Your task to perform on an android device: Clear the cart on costco. Image 0: 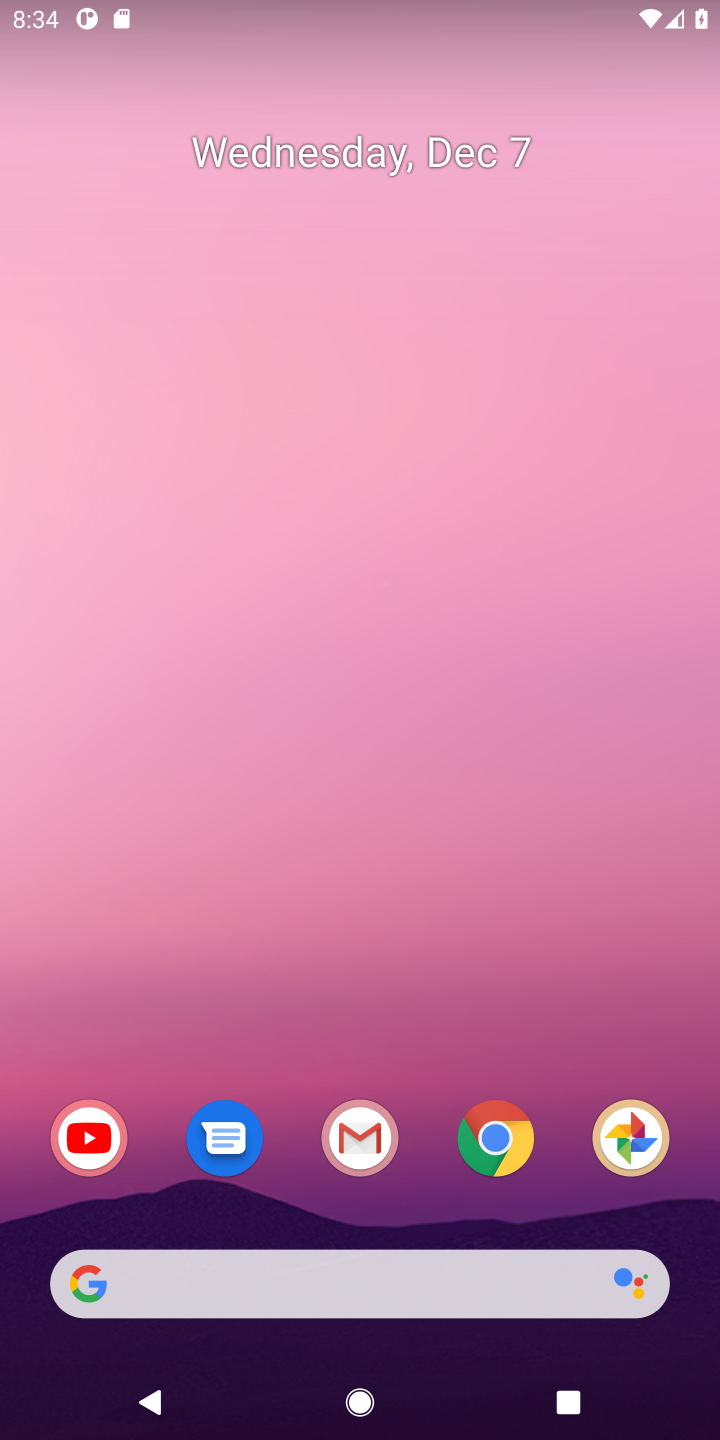
Step 0: press home button
Your task to perform on an android device: Clear the cart on costco. Image 1: 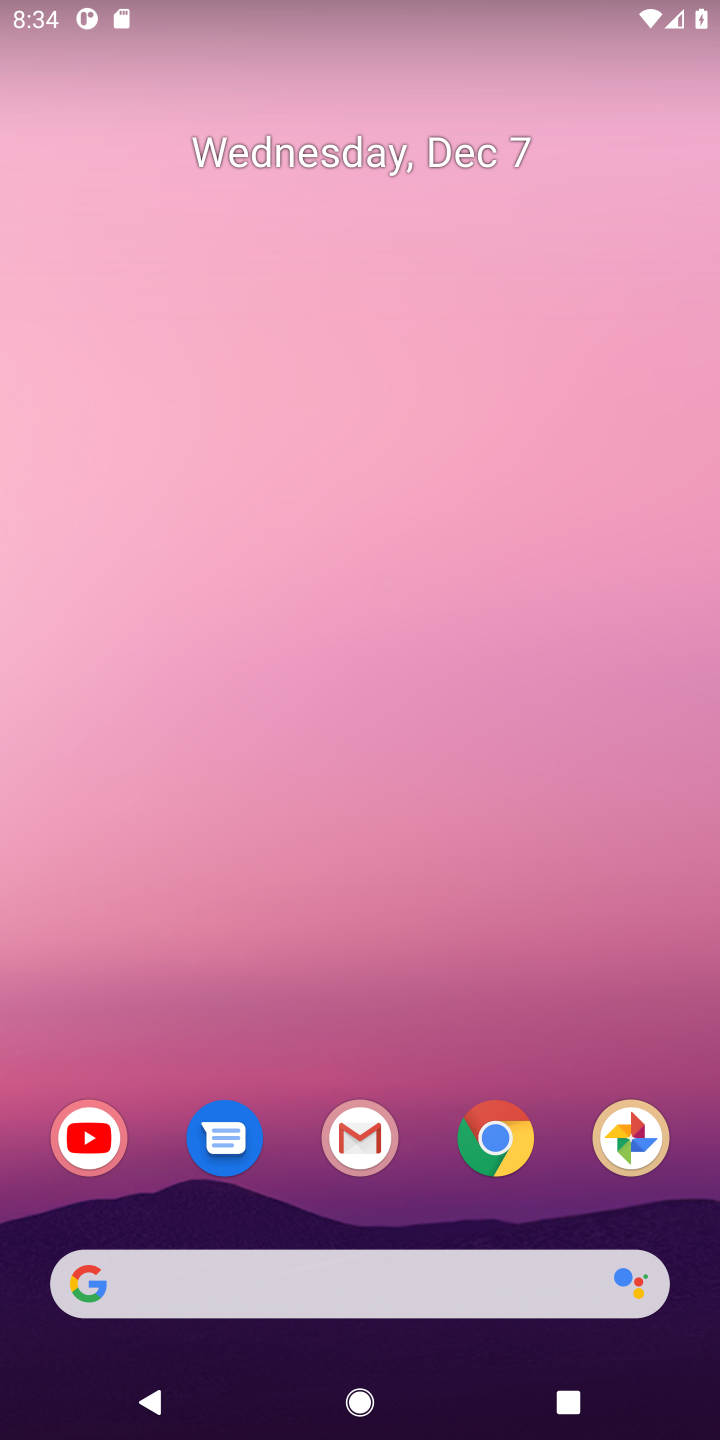
Step 1: click (130, 1270)
Your task to perform on an android device: Clear the cart on costco. Image 2: 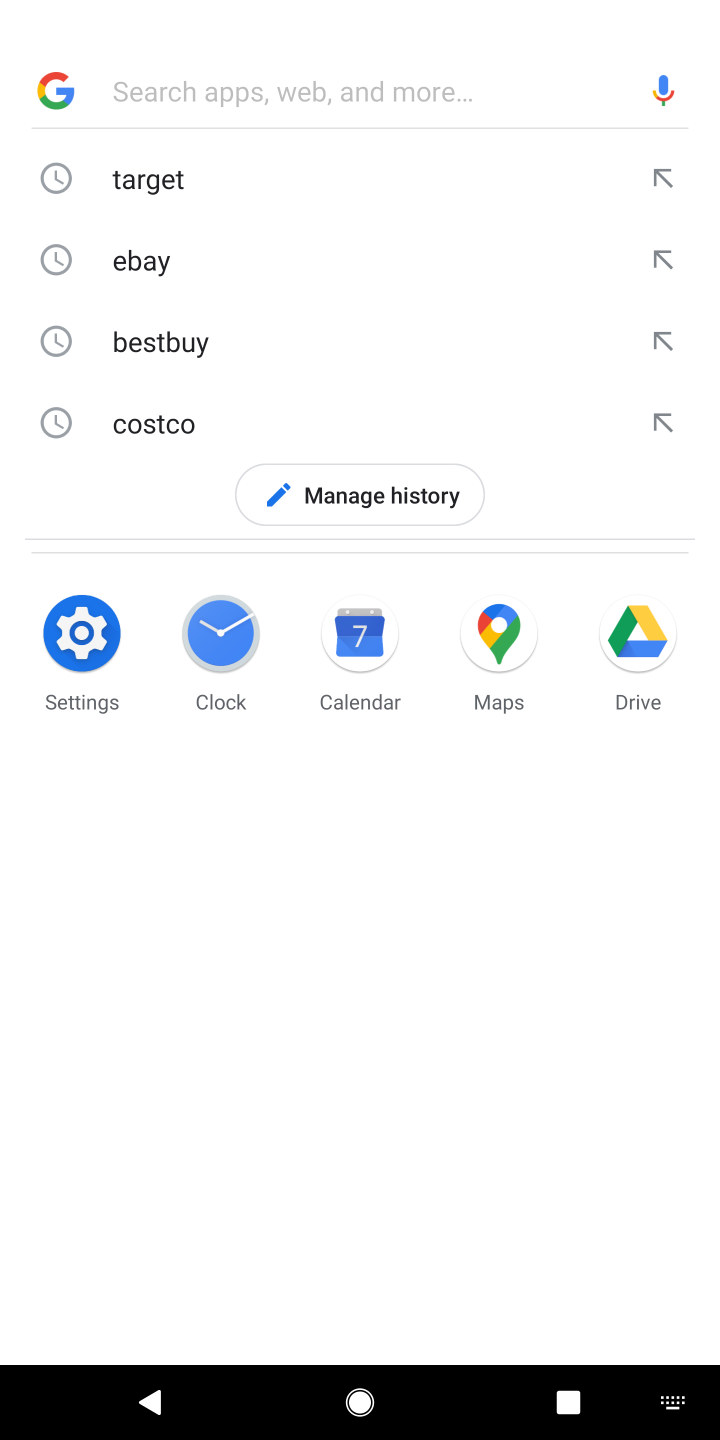
Step 2: type "costco"
Your task to perform on an android device: Clear the cart on costco. Image 3: 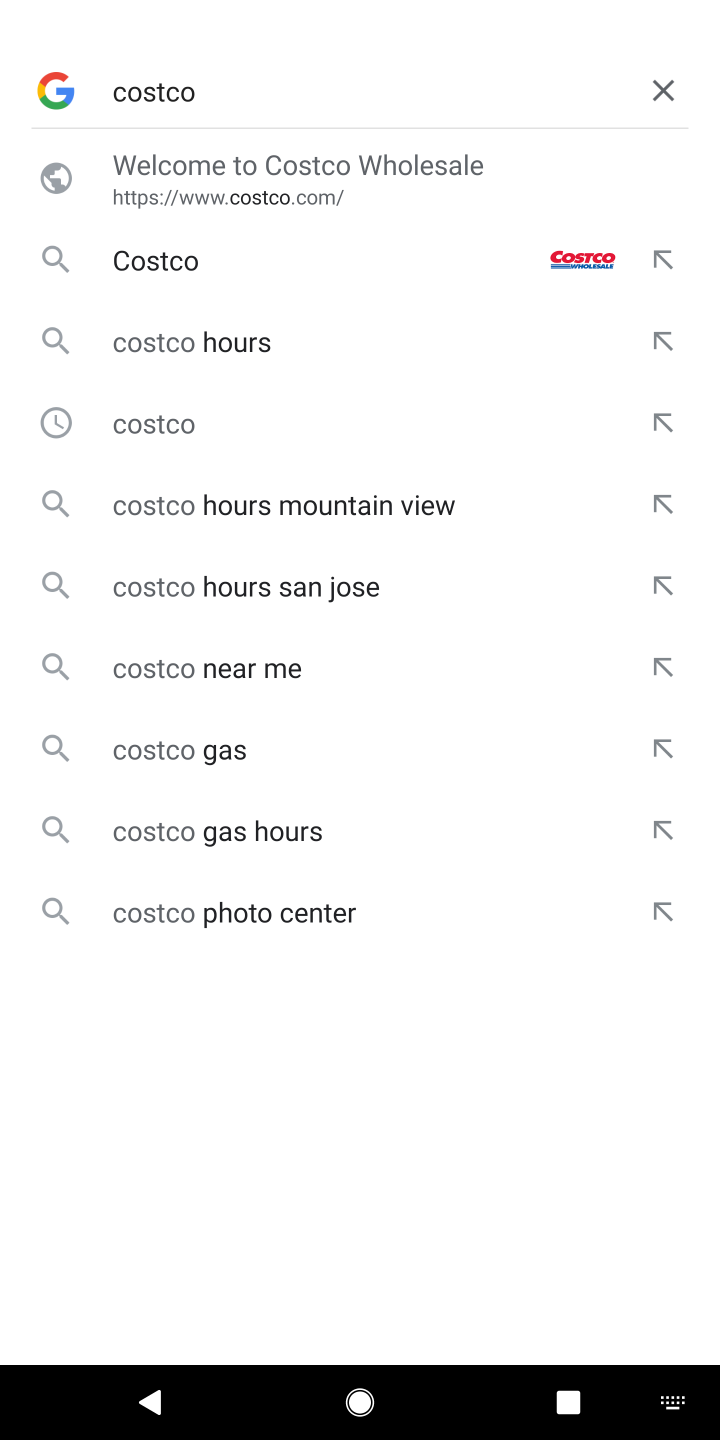
Step 3: press enter
Your task to perform on an android device: Clear the cart on costco. Image 4: 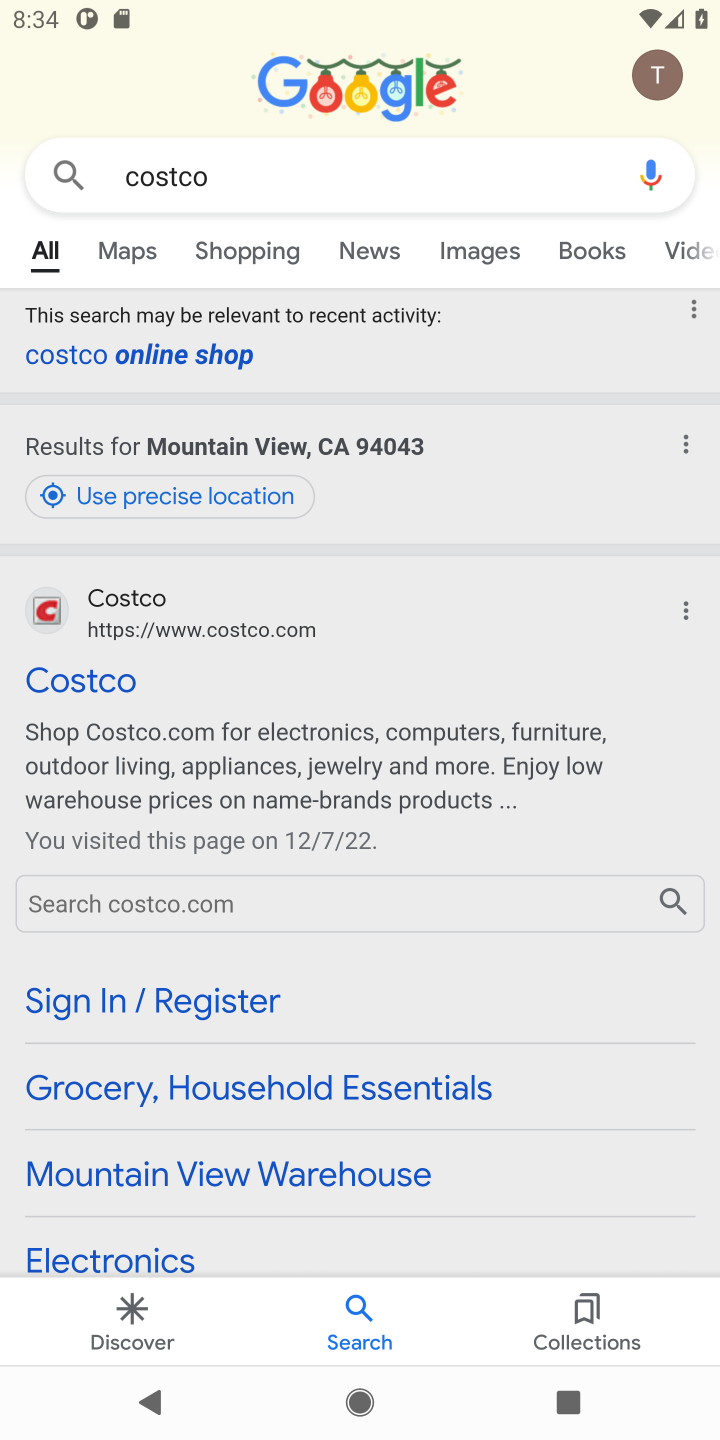
Step 4: click (90, 680)
Your task to perform on an android device: Clear the cart on costco. Image 5: 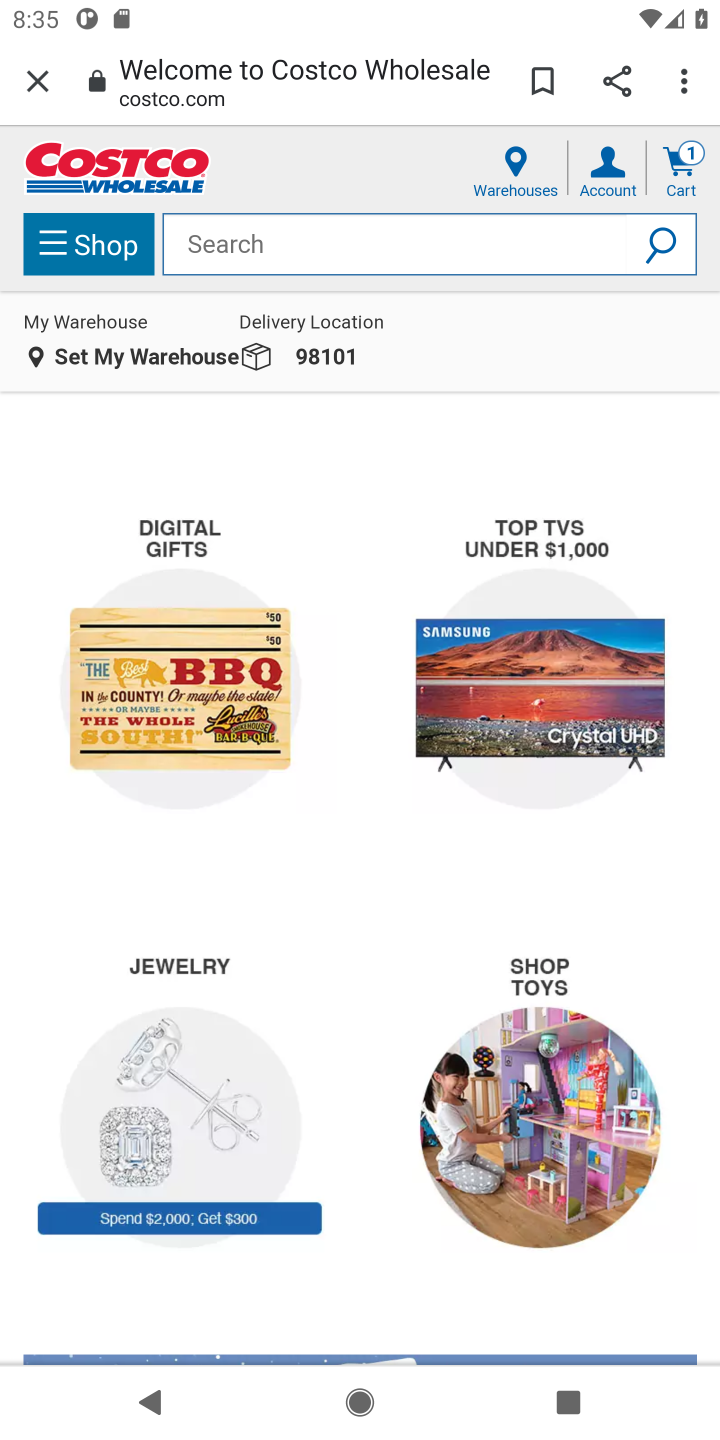
Step 5: click (685, 168)
Your task to perform on an android device: Clear the cart on costco. Image 6: 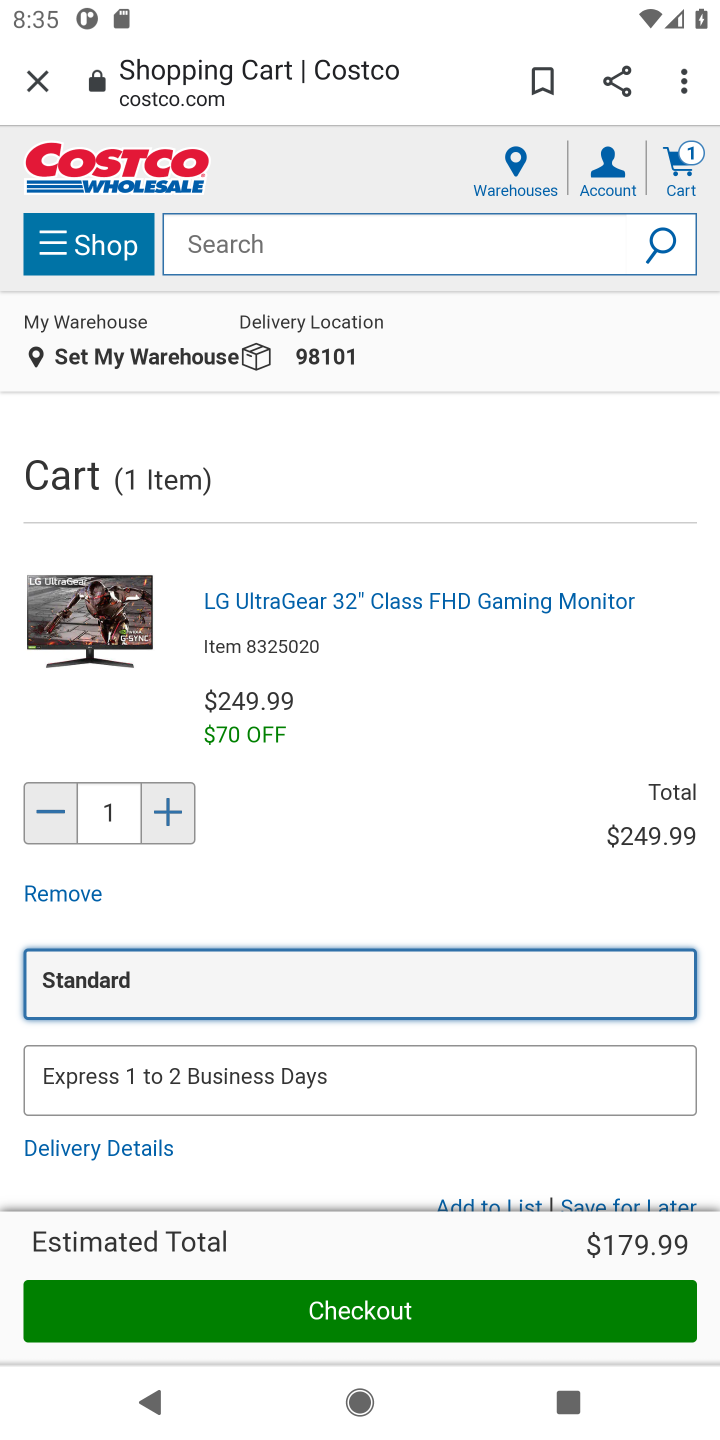
Step 6: click (53, 889)
Your task to perform on an android device: Clear the cart on costco. Image 7: 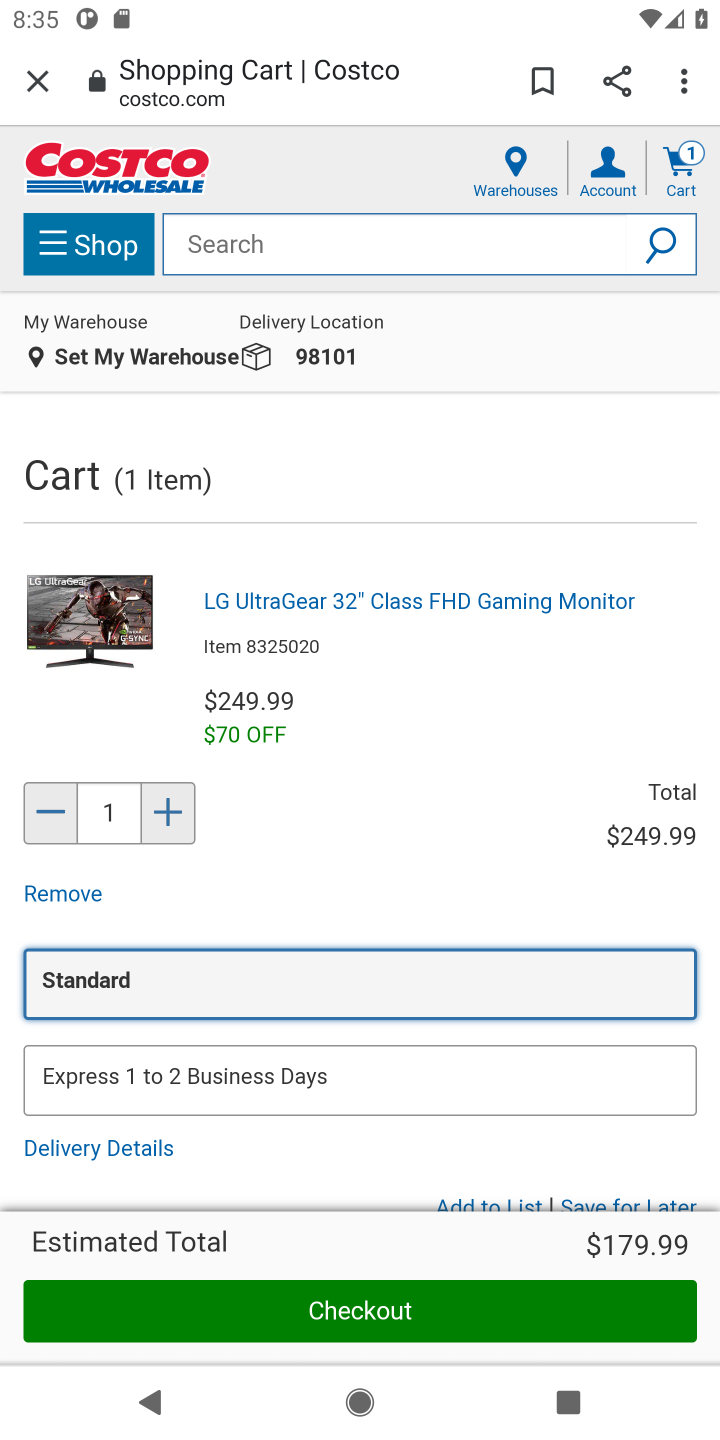
Step 7: task complete